Your task to perform on an android device: Show me popular videos on Youtube Image 0: 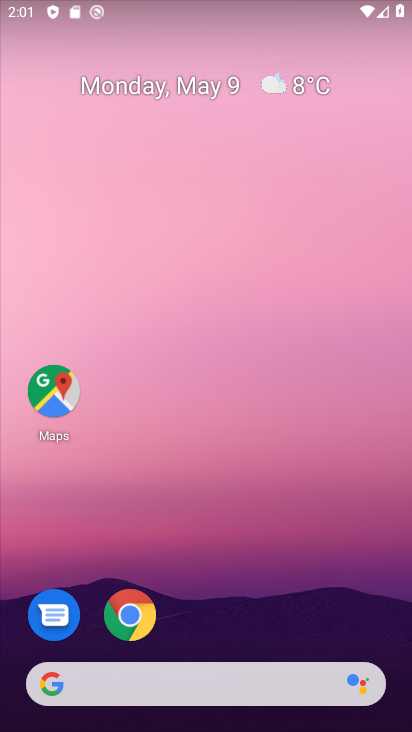
Step 0: drag from (232, 599) to (229, 199)
Your task to perform on an android device: Show me popular videos on Youtube Image 1: 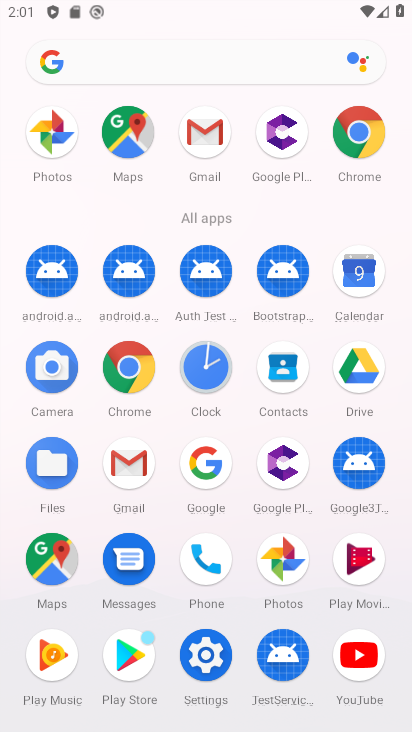
Step 1: click (348, 661)
Your task to perform on an android device: Show me popular videos on Youtube Image 2: 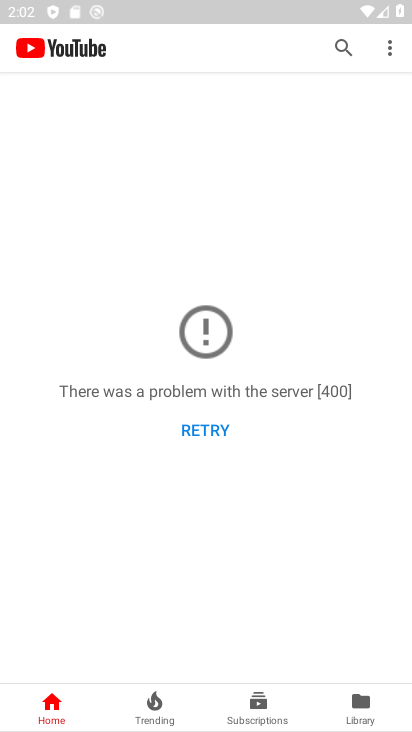
Step 2: task complete